Your task to perform on an android device: Search for vegetarian restaurants on Maps Image 0: 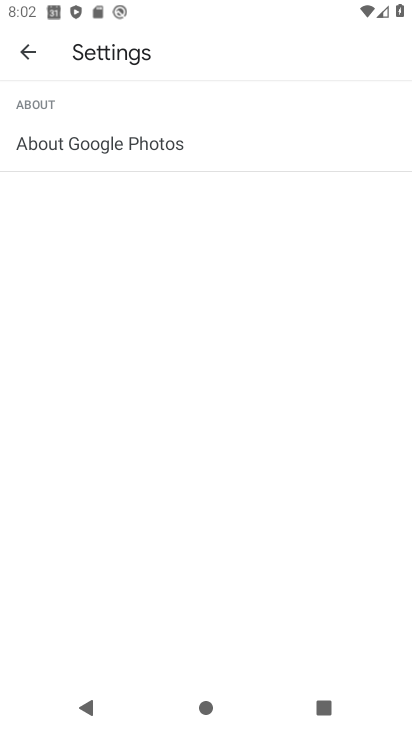
Step 0: press home button
Your task to perform on an android device: Search for vegetarian restaurants on Maps Image 1: 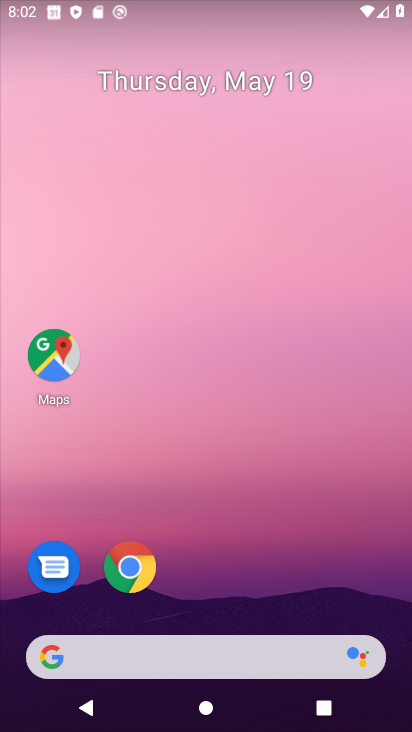
Step 1: click (41, 351)
Your task to perform on an android device: Search for vegetarian restaurants on Maps Image 2: 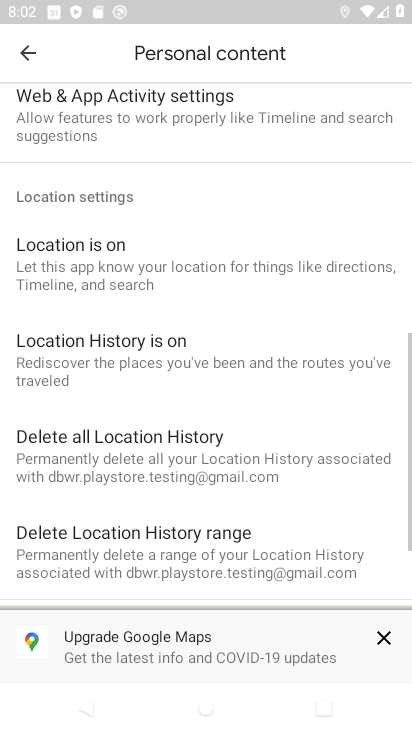
Step 2: click (36, 64)
Your task to perform on an android device: Search for vegetarian restaurants on Maps Image 3: 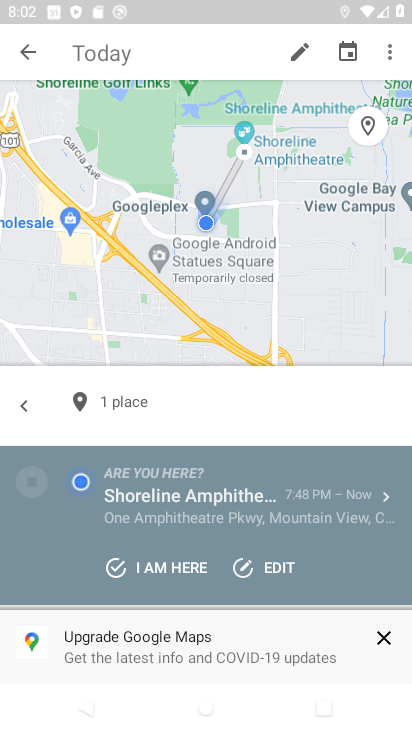
Step 3: click (36, 64)
Your task to perform on an android device: Search for vegetarian restaurants on Maps Image 4: 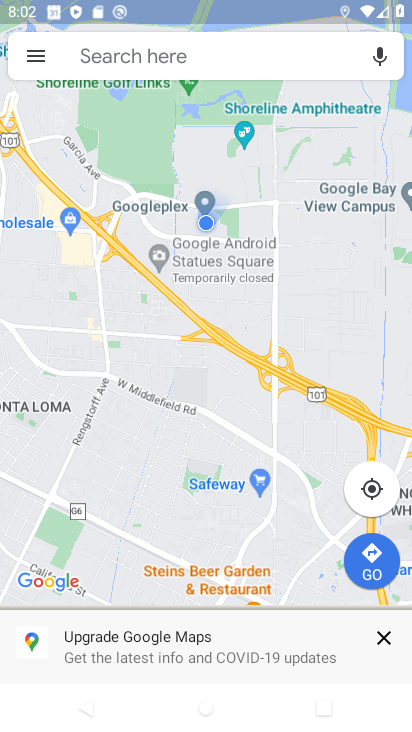
Step 4: click (185, 59)
Your task to perform on an android device: Search for vegetarian restaurants on Maps Image 5: 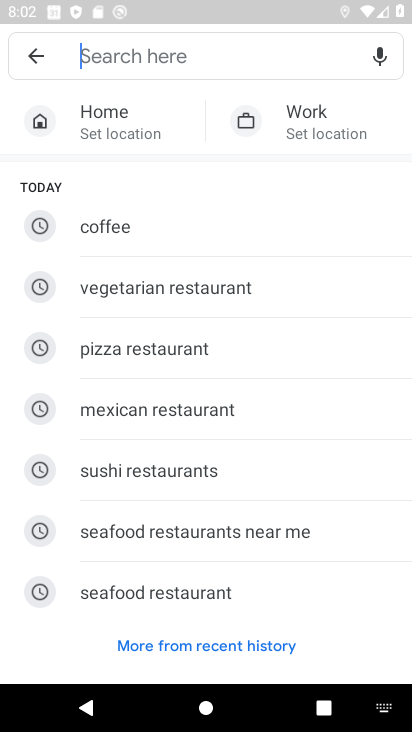
Step 5: click (222, 276)
Your task to perform on an android device: Search for vegetarian restaurants on Maps Image 6: 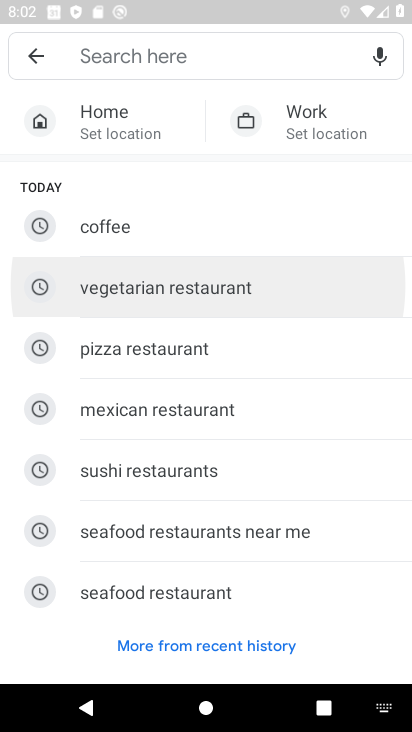
Step 6: click (222, 276)
Your task to perform on an android device: Search for vegetarian restaurants on Maps Image 7: 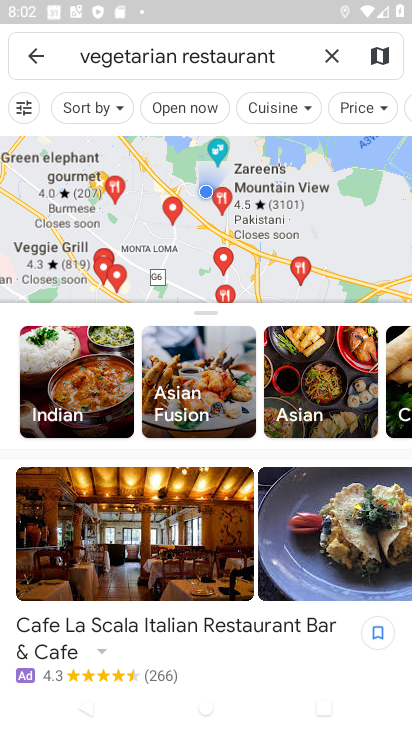
Step 7: task complete